Your task to perform on an android device: Go to Google maps Image 0: 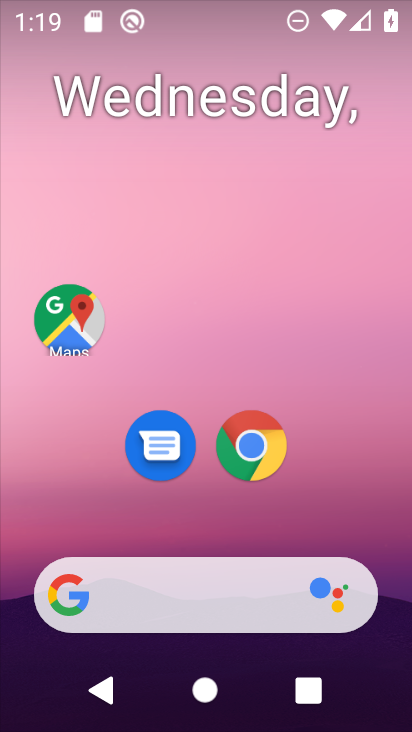
Step 0: drag from (398, 624) to (273, 57)
Your task to perform on an android device: Go to Google maps Image 1: 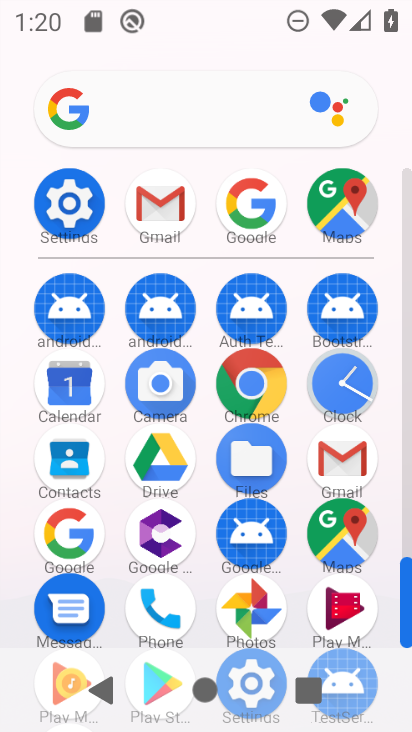
Step 1: click (346, 229)
Your task to perform on an android device: Go to Google maps Image 2: 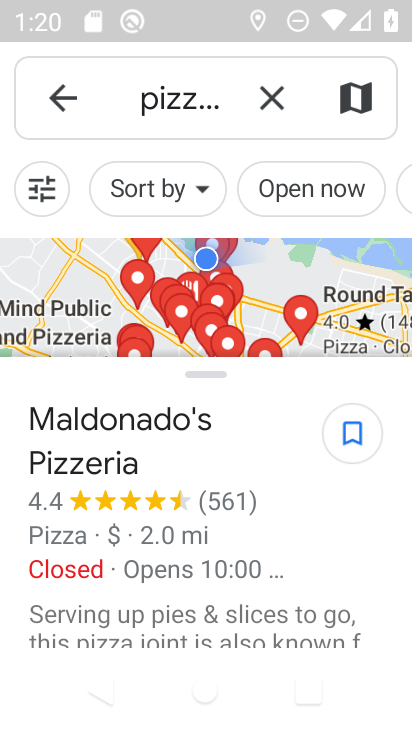
Step 2: click (286, 102)
Your task to perform on an android device: Go to Google maps Image 3: 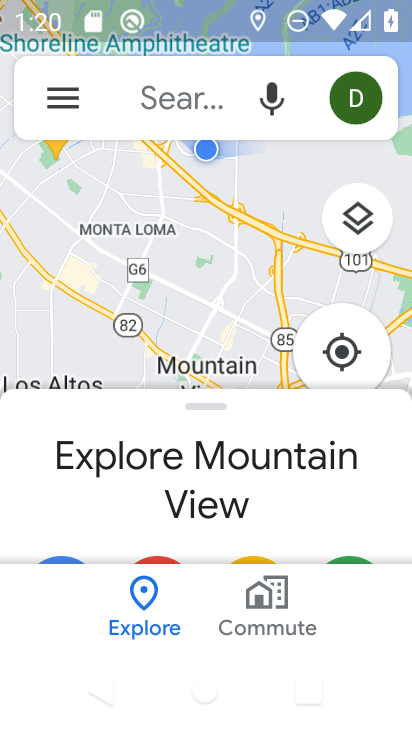
Step 3: task complete